Your task to perform on an android device: Open network settings Image 0: 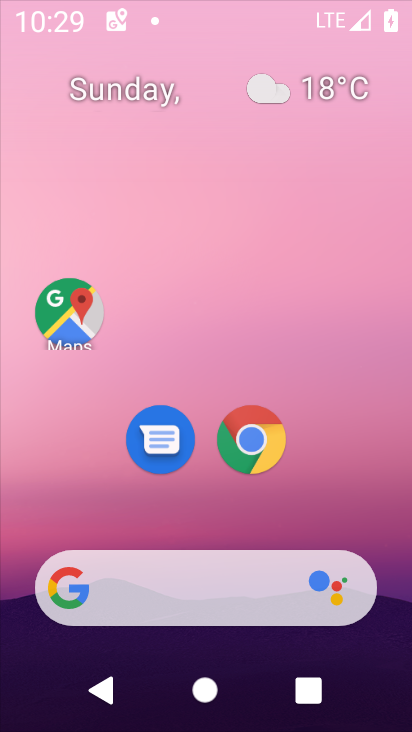
Step 0: press home button
Your task to perform on an android device: Open network settings Image 1: 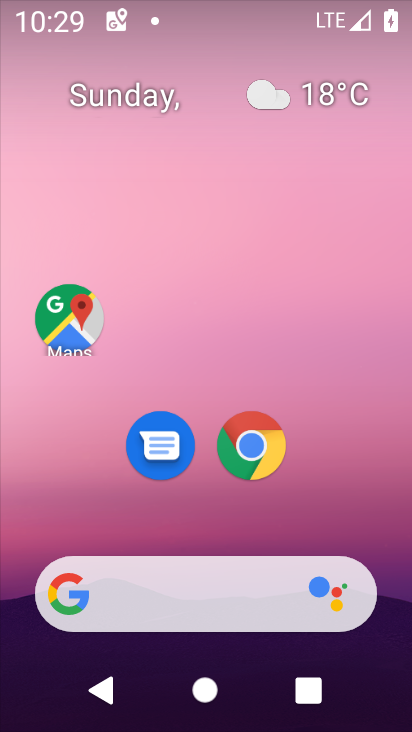
Step 1: drag from (208, 530) to (236, 44)
Your task to perform on an android device: Open network settings Image 2: 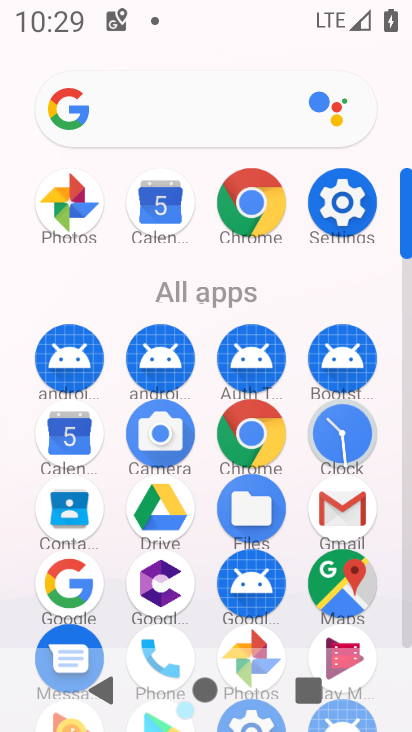
Step 2: click (341, 197)
Your task to perform on an android device: Open network settings Image 3: 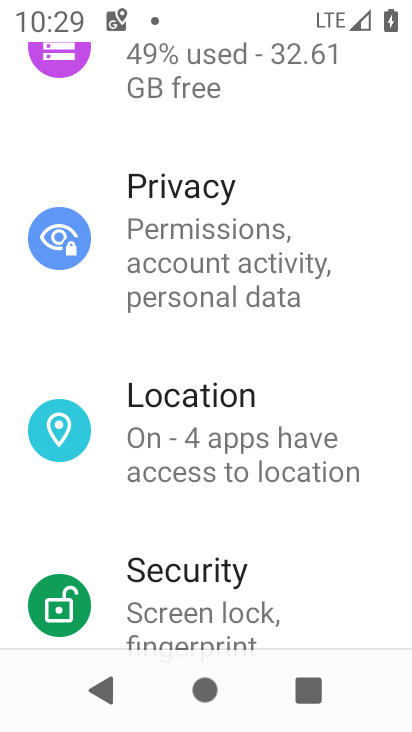
Step 3: drag from (112, 68) to (124, 730)
Your task to perform on an android device: Open network settings Image 4: 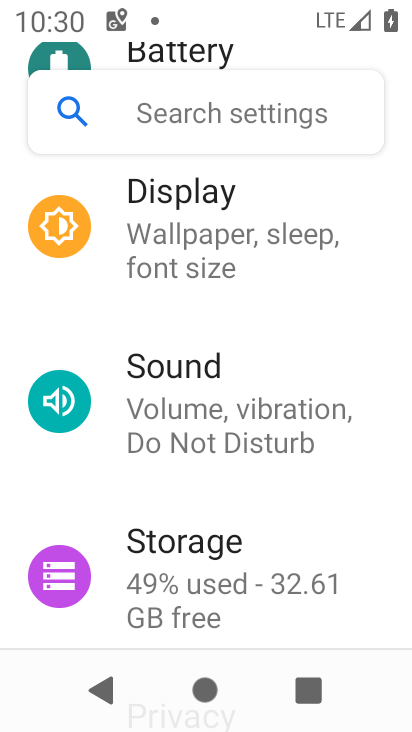
Step 4: drag from (123, 180) to (123, 717)
Your task to perform on an android device: Open network settings Image 5: 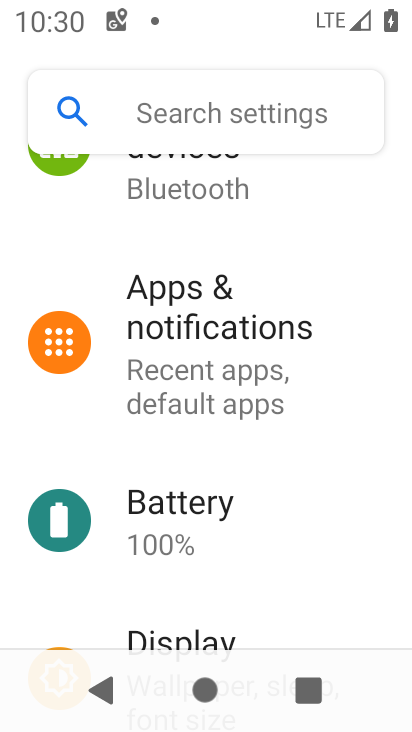
Step 5: drag from (105, 188) to (157, 566)
Your task to perform on an android device: Open network settings Image 6: 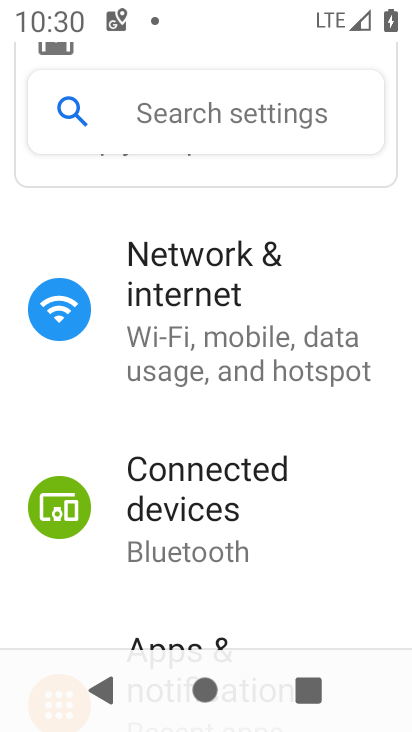
Step 6: click (198, 311)
Your task to perform on an android device: Open network settings Image 7: 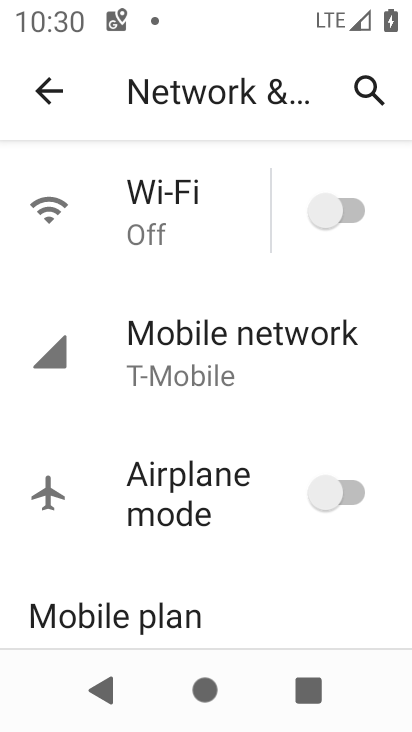
Step 7: drag from (217, 619) to (240, 255)
Your task to perform on an android device: Open network settings Image 8: 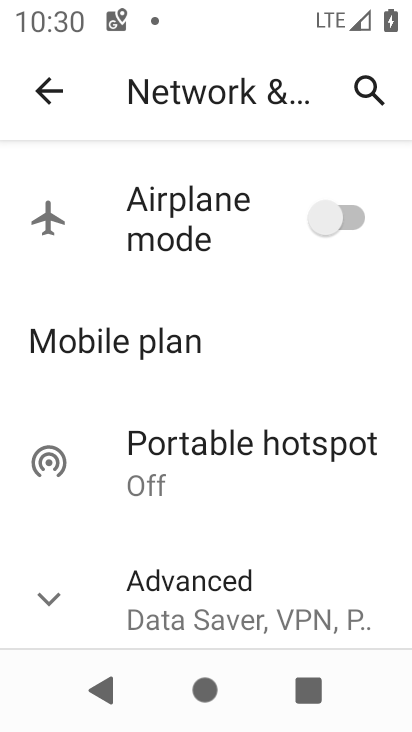
Step 8: click (59, 590)
Your task to perform on an android device: Open network settings Image 9: 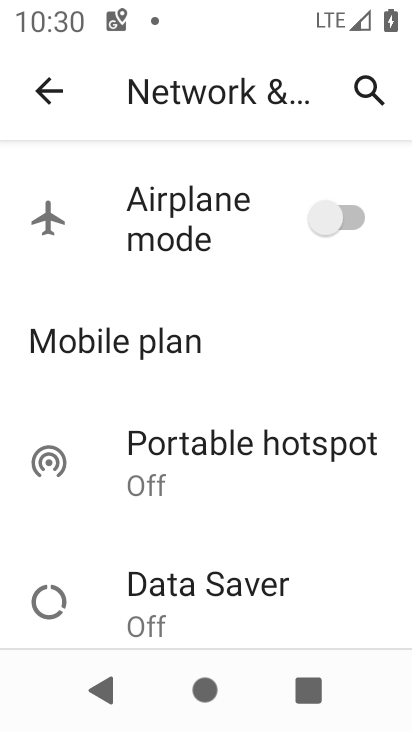
Step 9: task complete